Your task to perform on an android device: change the upload size in google photos Image 0: 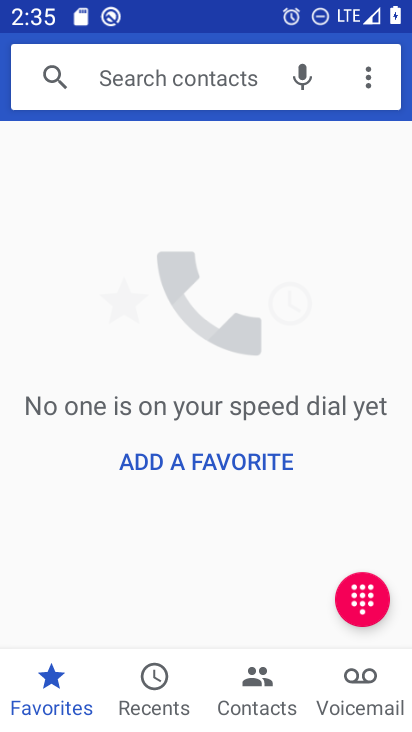
Step 0: press home button
Your task to perform on an android device: change the upload size in google photos Image 1: 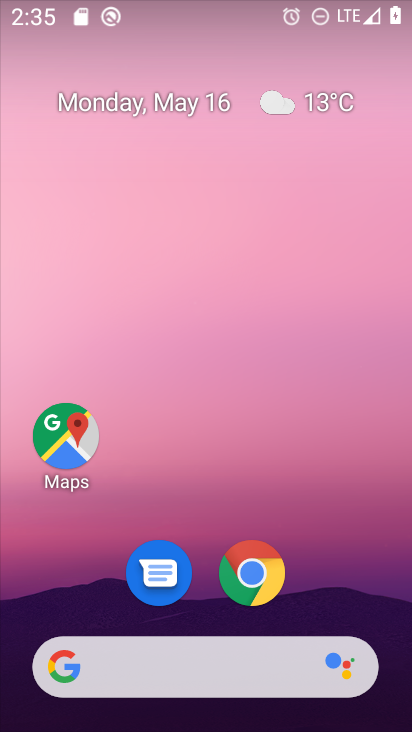
Step 1: drag from (170, 658) to (182, 170)
Your task to perform on an android device: change the upload size in google photos Image 2: 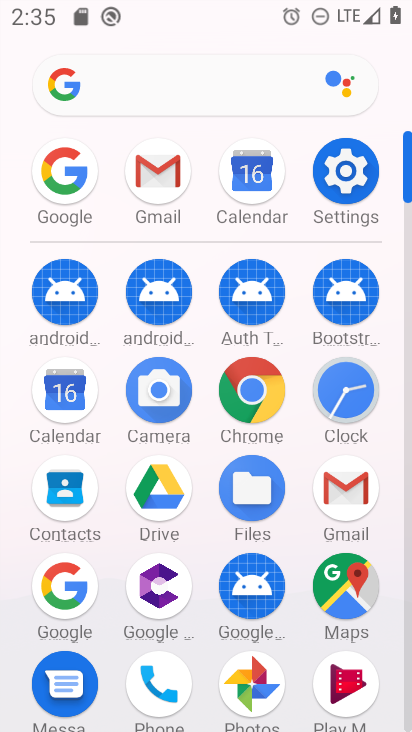
Step 2: click (248, 679)
Your task to perform on an android device: change the upload size in google photos Image 3: 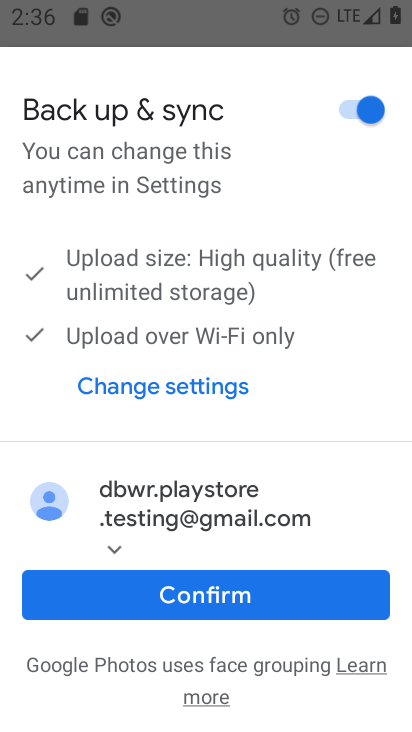
Step 3: click (150, 586)
Your task to perform on an android device: change the upload size in google photos Image 4: 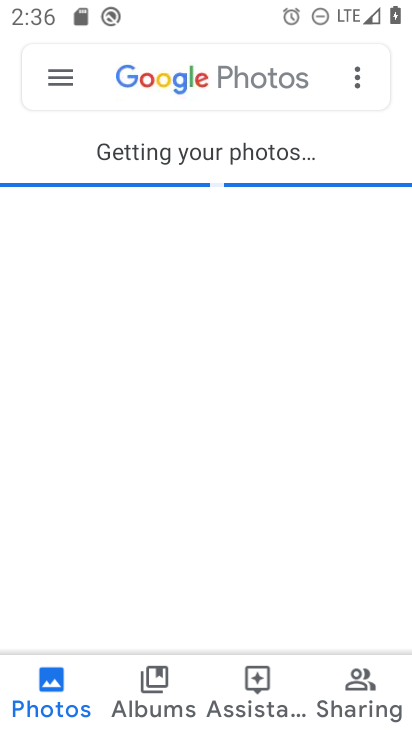
Step 4: click (32, 92)
Your task to perform on an android device: change the upload size in google photos Image 5: 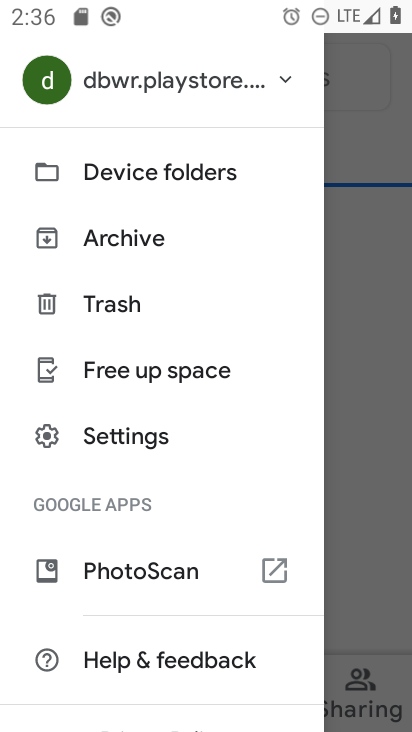
Step 5: click (111, 443)
Your task to perform on an android device: change the upload size in google photos Image 6: 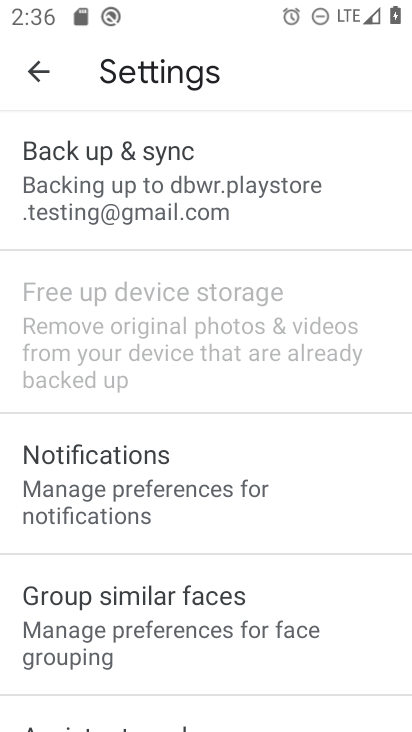
Step 6: click (121, 171)
Your task to perform on an android device: change the upload size in google photos Image 7: 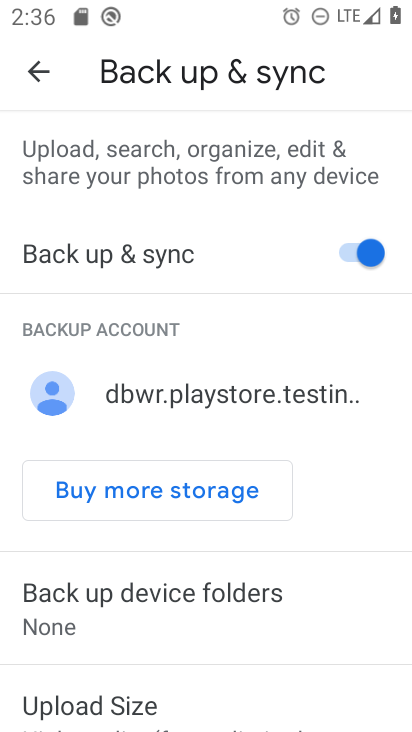
Step 7: drag from (138, 641) to (148, 228)
Your task to perform on an android device: change the upload size in google photos Image 8: 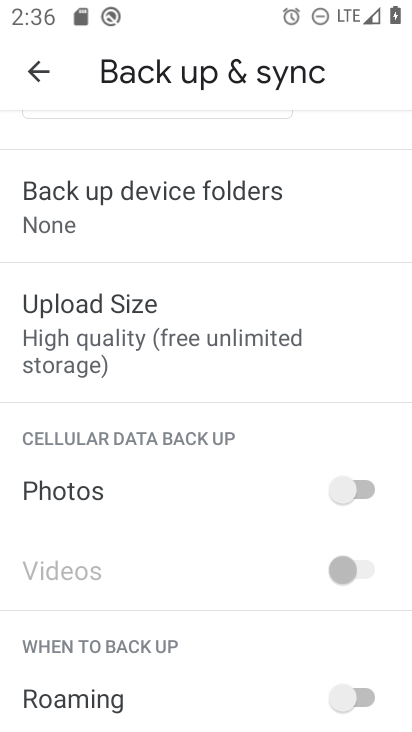
Step 8: click (175, 361)
Your task to perform on an android device: change the upload size in google photos Image 9: 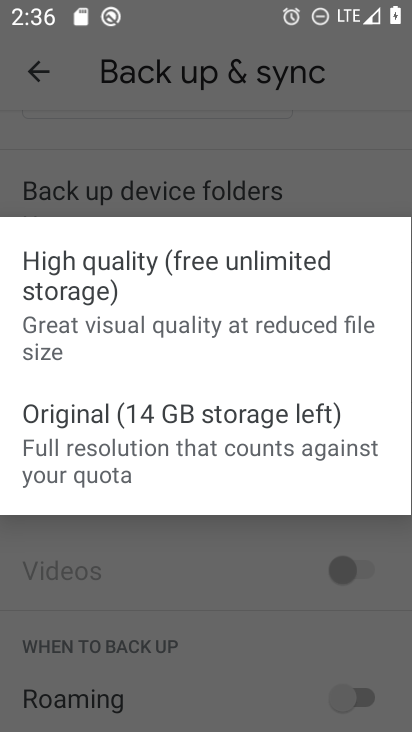
Step 9: click (128, 320)
Your task to perform on an android device: change the upload size in google photos Image 10: 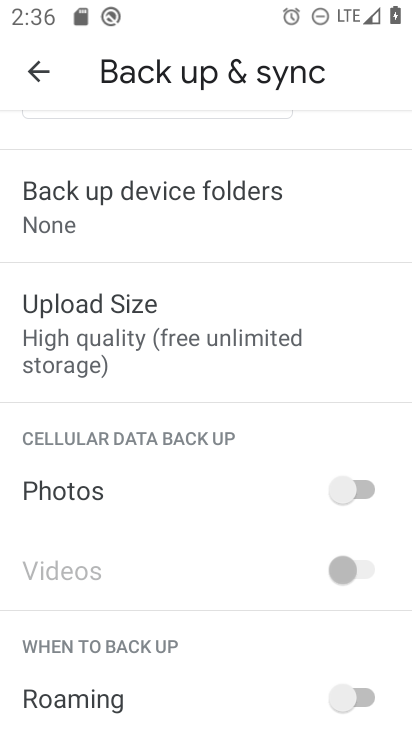
Step 10: task complete